Your task to perform on an android device: What is the recent news? Image 0: 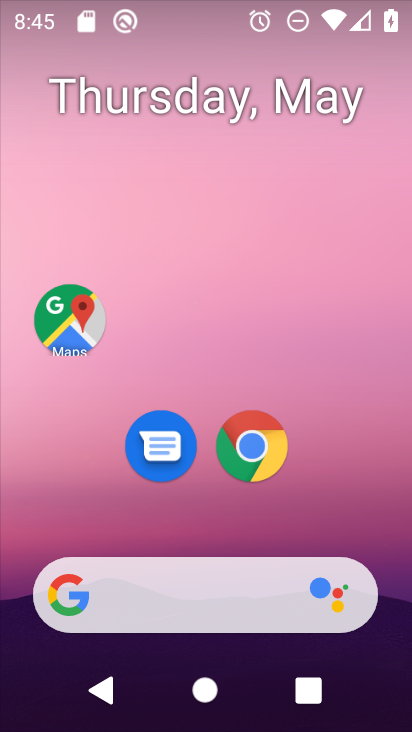
Step 0: drag from (359, 453) to (411, 86)
Your task to perform on an android device: What is the recent news? Image 1: 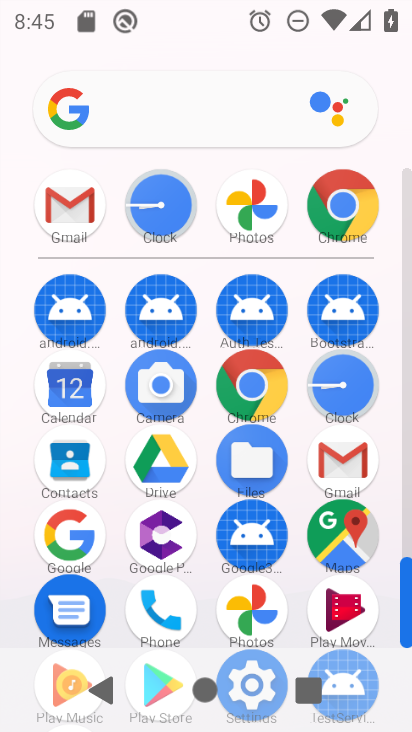
Step 1: click (258, 404)
Your task to perform on an android device: What is the recent news? Image 2: 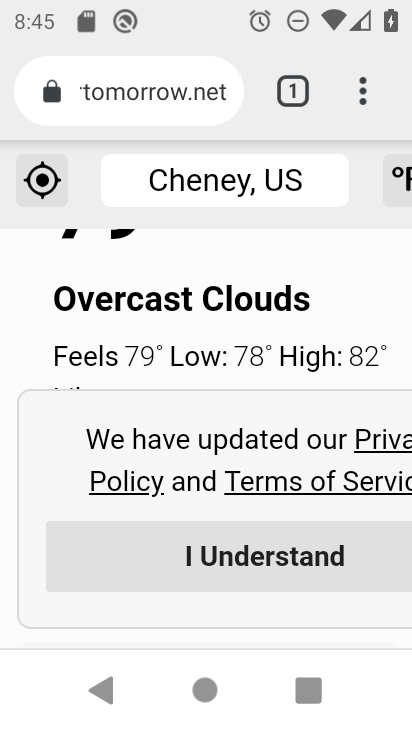
Step 2: click (172, 99)
Your task to perform on an android device: What is the recent news? Image 3: 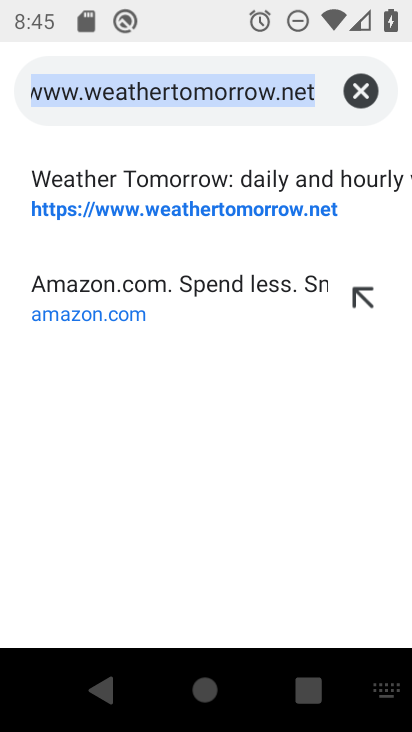
Step 3: click (378, 106)
Your task to perform on an android device: What is the recent news? Image 4: 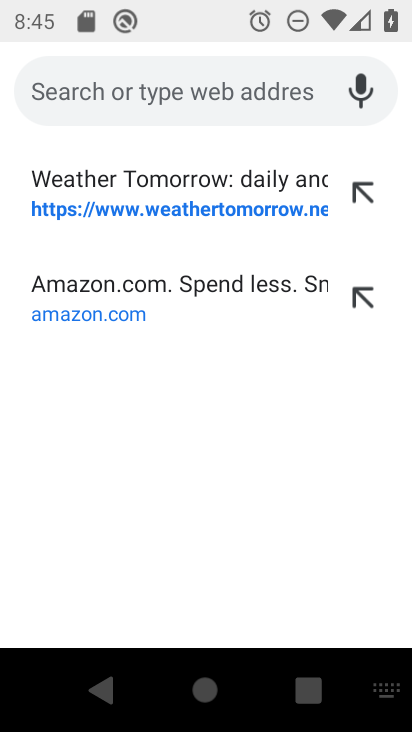
Step 4: type "what is the recent news"
Your task to perform on an android device: What is the recent news? Image 5: 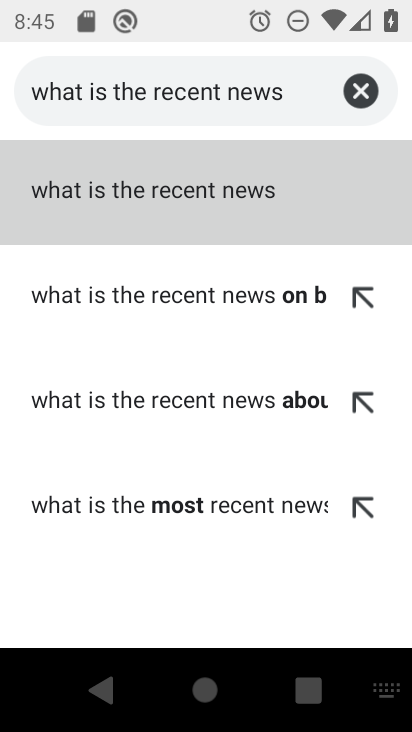
Step 5: click (131, 197)
Your task to perform on an android device: What is the recent news? Image 6: 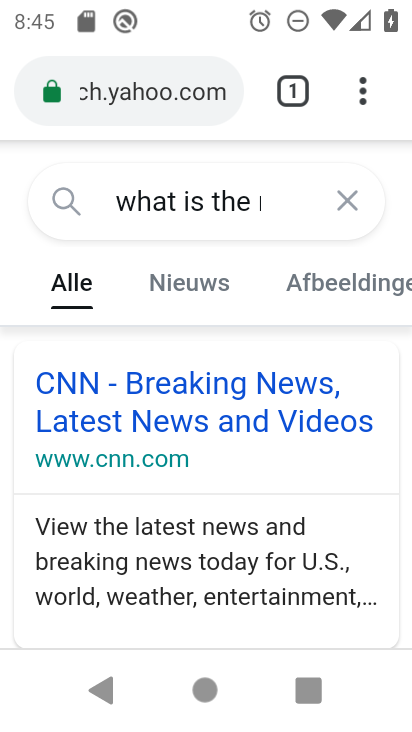
Step 6: drag from (315, 565) to (284, 264)
Your task to perform on an android device: What is the recent news? Image 7: 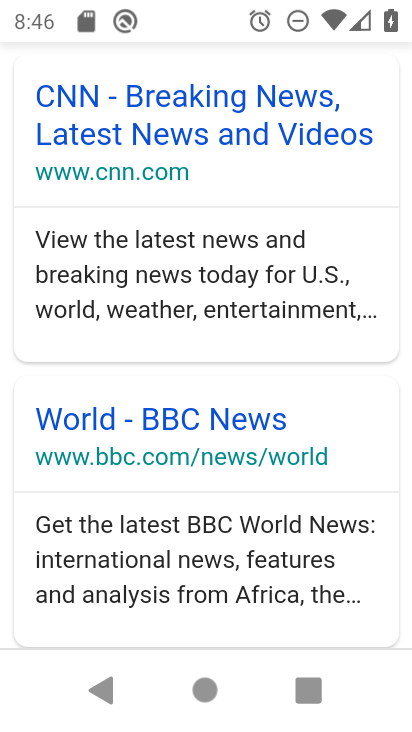
Step 7: click (230, 127)
Your task to perform on an android device: What is the recent news? Image 8: 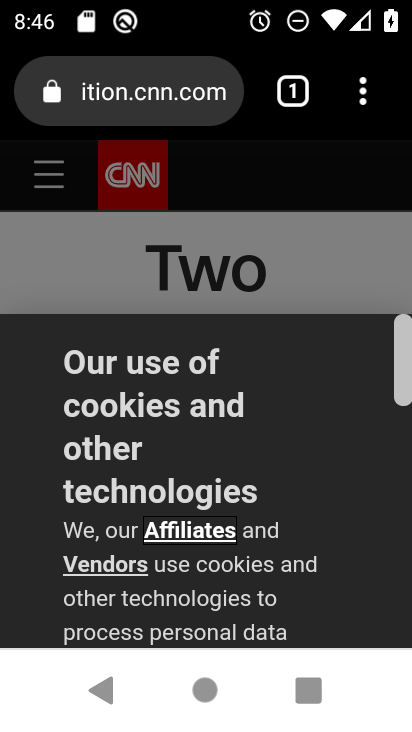
Step 8: drag from (144, 501) to (189, 246)
Your task to perform on an android device: What is the recent news? Image 9: 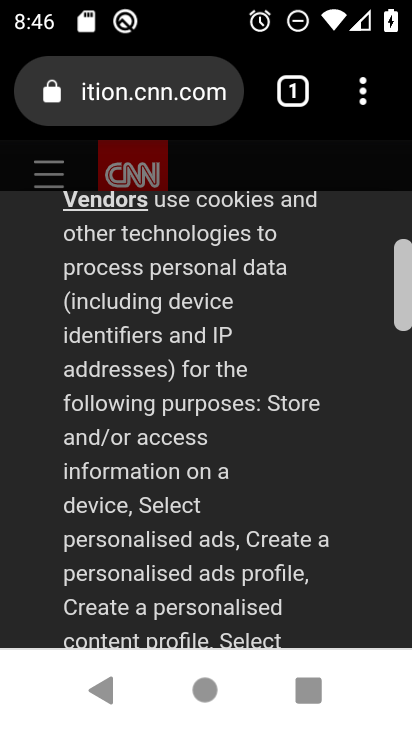
Step 9: drag from (178, 587) to (261, 205)
Your task to perform on an android device: What is the recent news? Image 10: 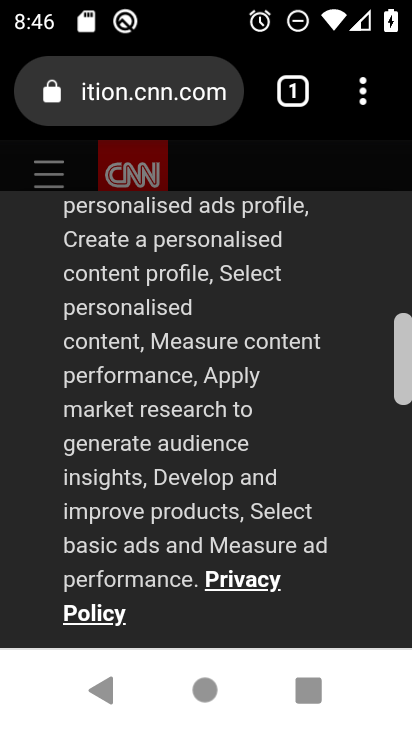
Step 10: drag from (276, 636) to (351, 199)
Your task to perform on an android device: What is the recent news? Image 11: 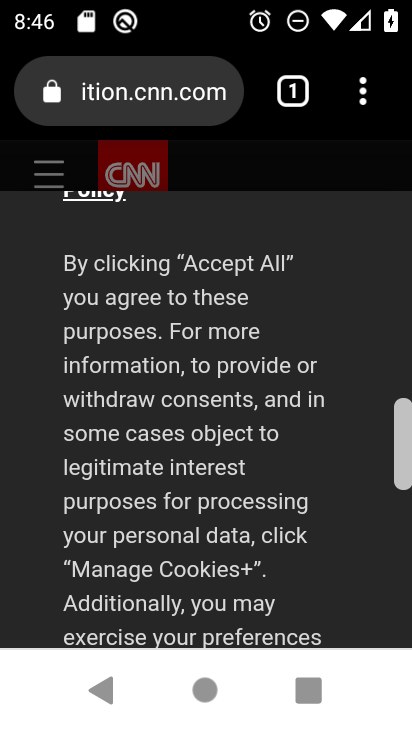
Step 11: drag from (294, 581) to (336, 196)
Your task to perform on an android device: What is the recent news? Image 12: 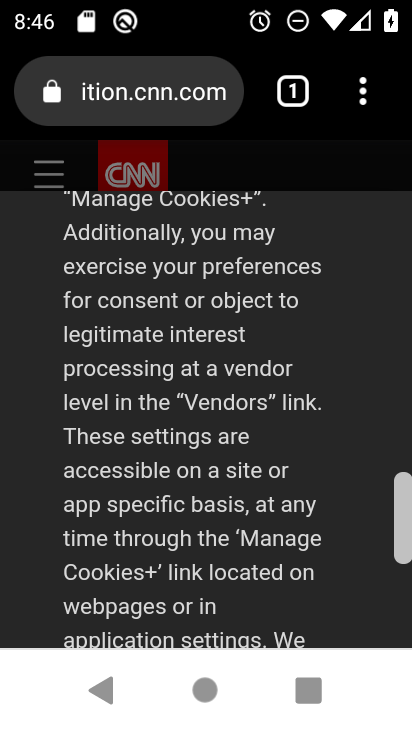
Step 12: drag from (307, 604) to (369, 191)
Your task to perform on an android device: What is the recent news? Image 13: 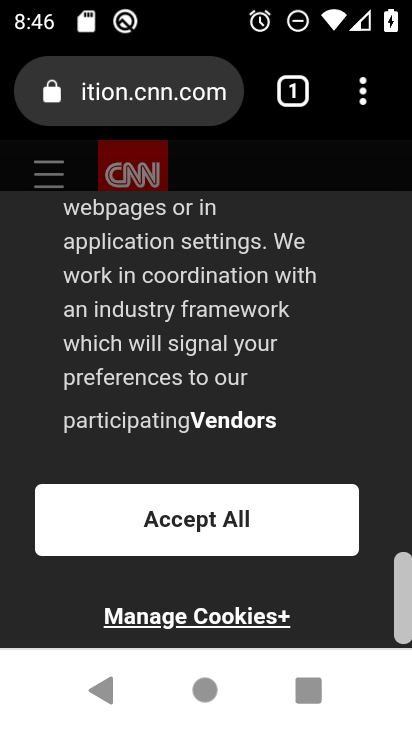
Step 13: click (289, 533)
Your task to perform on an android device: What is the recent news? Image 14: 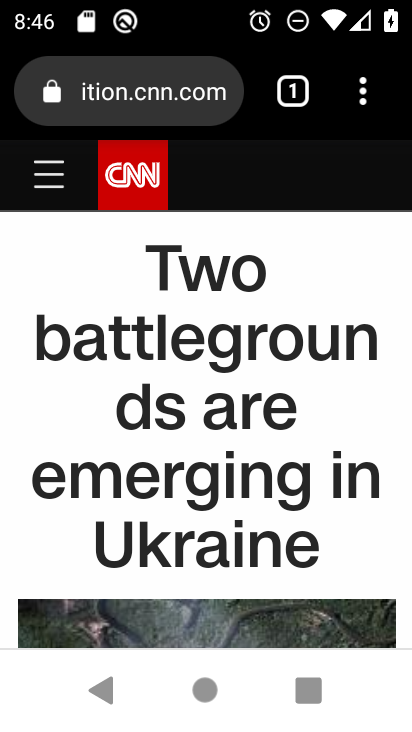
Step 14: task complete